Your task to perform on an android device: toggle sleep mode Image 0: 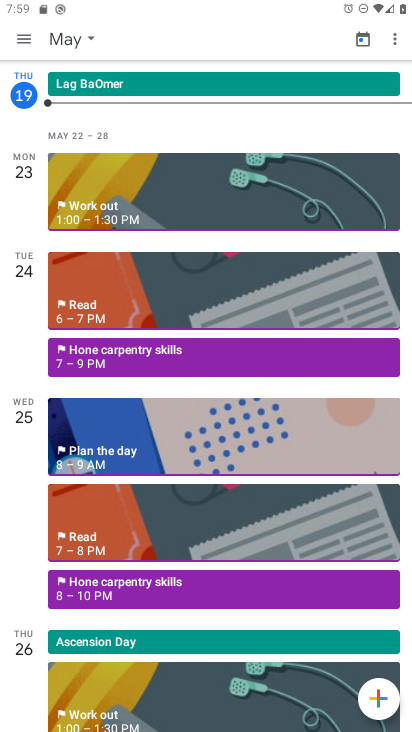
Step 0: press home button
Your task to perform on an android device: toggle sleep mode Image 1: 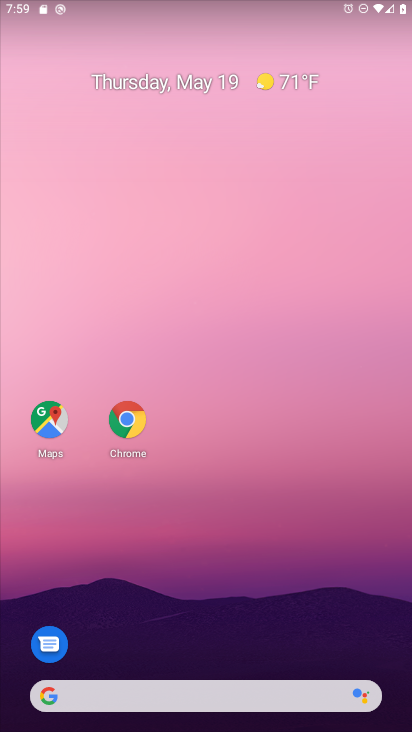
Step 1: drag from (207, 650) to (240, 292)
Your task to perform on an android device: toggle sleep mode Image 2: 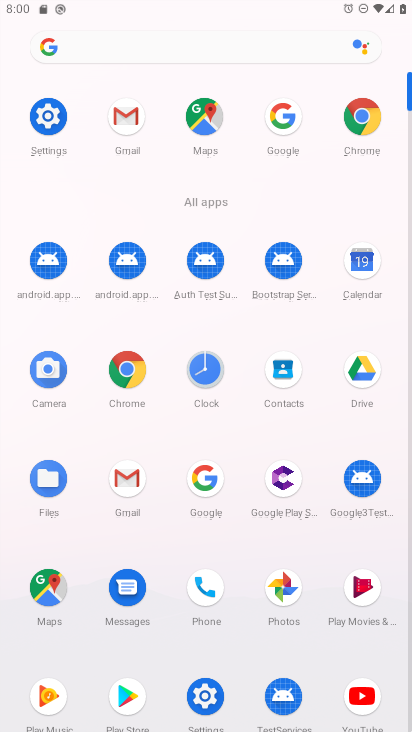
Step 2: click (49, 125)
Your task to perform on an android device: toggle sleep mode Image 3: 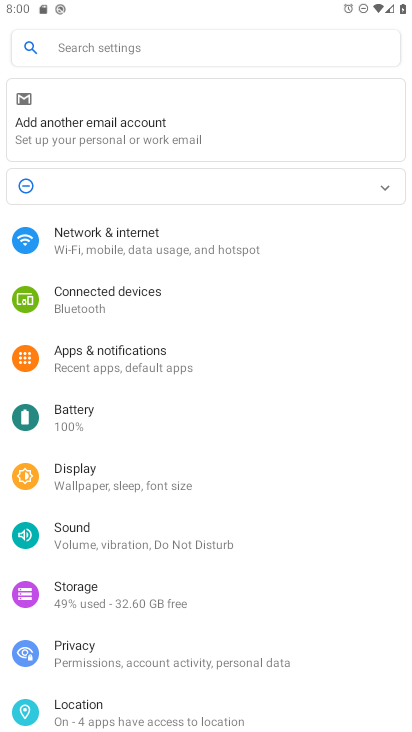
Step 3: click (124, 481)
Your task to perform on an android device: toggle sleep mode Image 4: 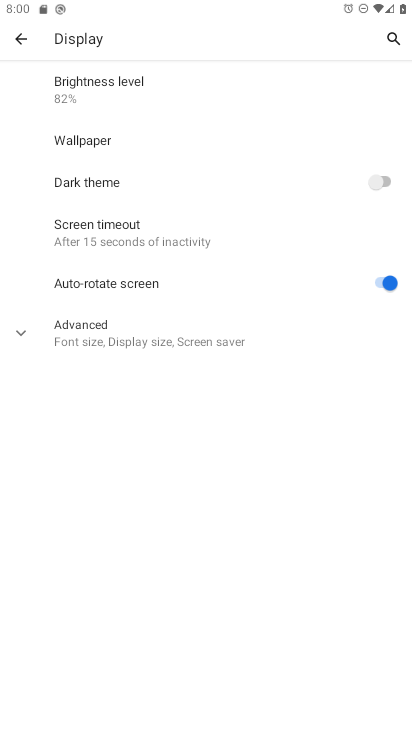
Step 4: click (100, 226)
Your task to perform on an android device: toggle sleep mode Image 5: 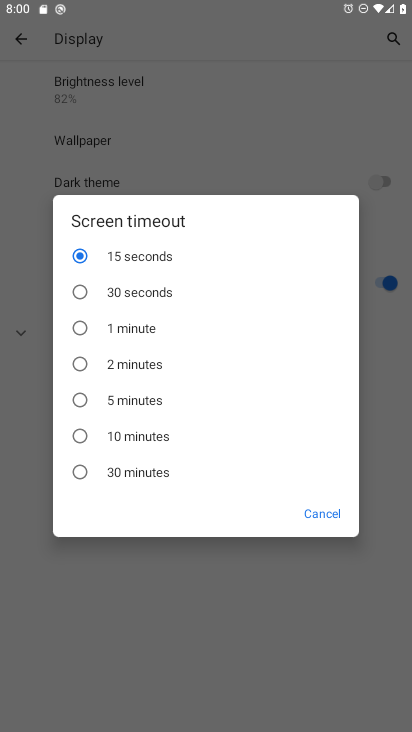
Step 5: click (102, 326)
Your task to perform on an android device: toggle sleep mode Image 6: 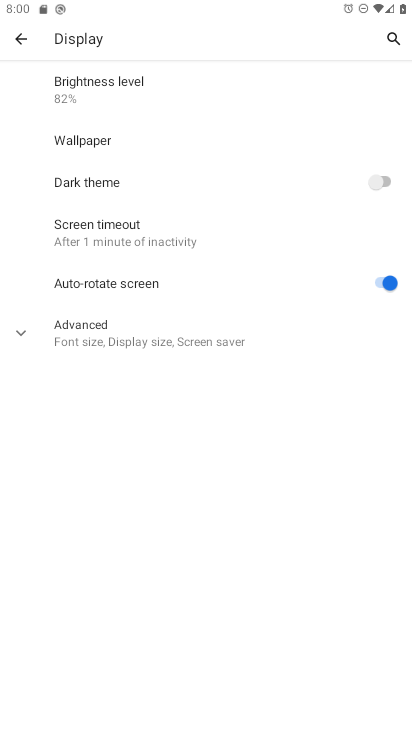
Step 6: task complete